Your task to perform on an android device: find snoozed emails in the gmail app Image 0: 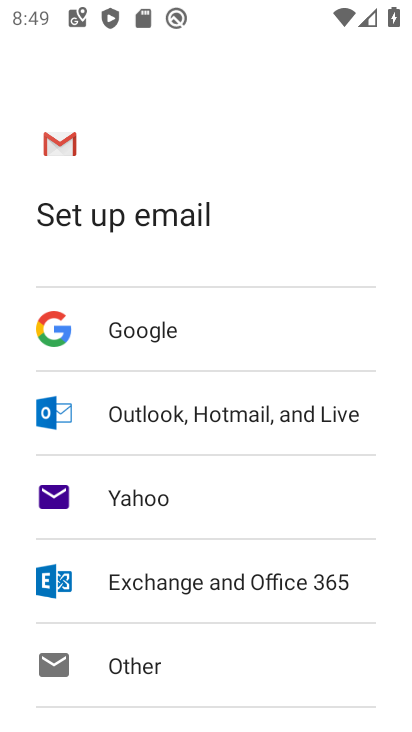
Step 0: press home button
Your task to perform on an android device: find snoozed emails in the gmail app Image 1: 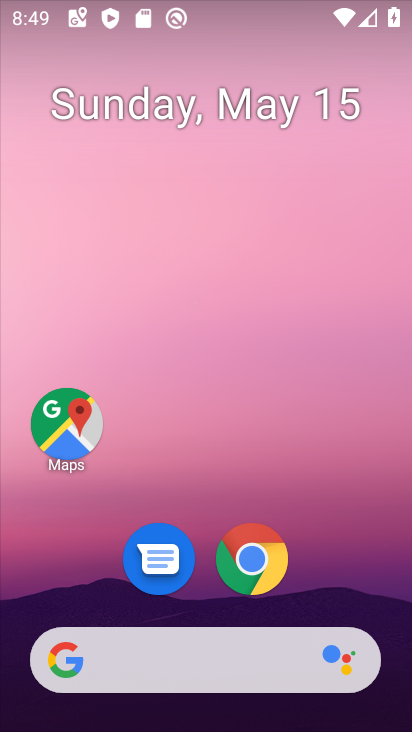
Step 1: drag from (374, 595) to (369, 175)
Your task to perform on an android device: find snoozed emails in the gmail app Image 2: 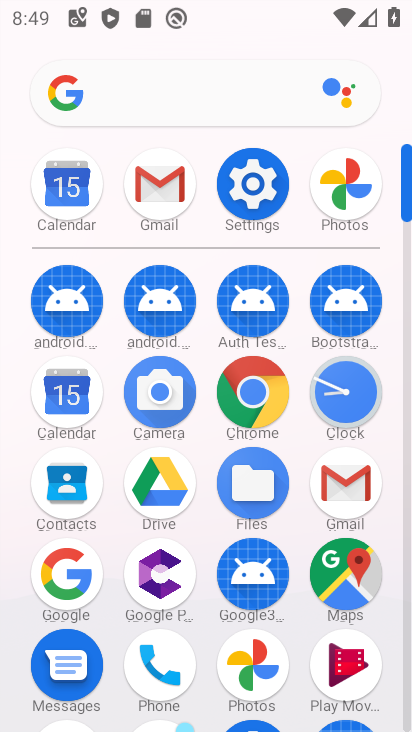
Step 2: click (172, 213)
Your task to perform on an android device: find snoozed emails in the gmail app Image 3: 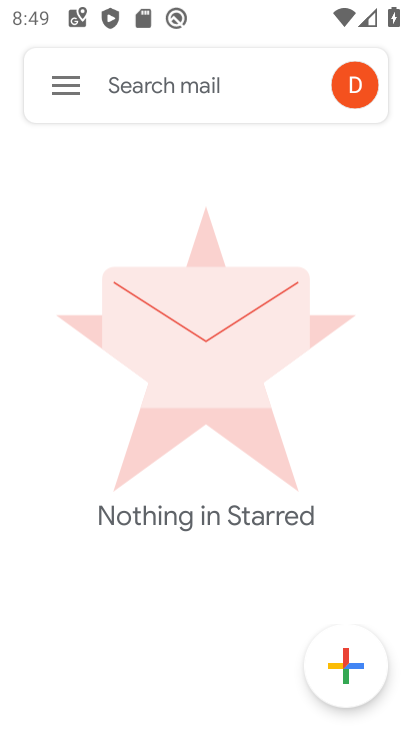
Step 3: click (73, 93)
Your task to perform on an android device: find snoozed emails in the gmail app Image 4: 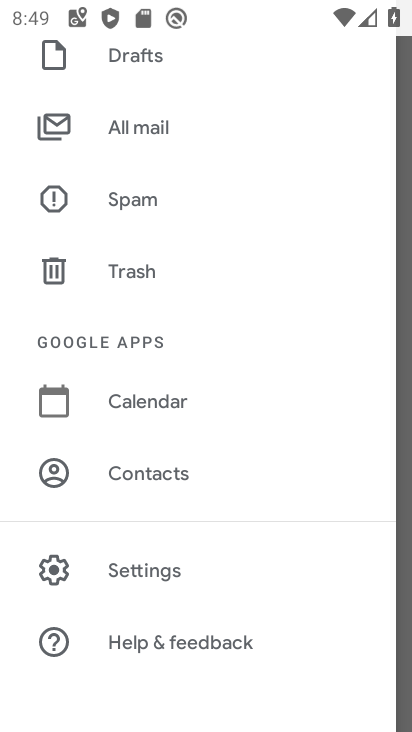
Step 4: drag from (148, 225) to (177, 489)
Your task to perform on an android device: find snoozed emails in the gmail app Image 5: 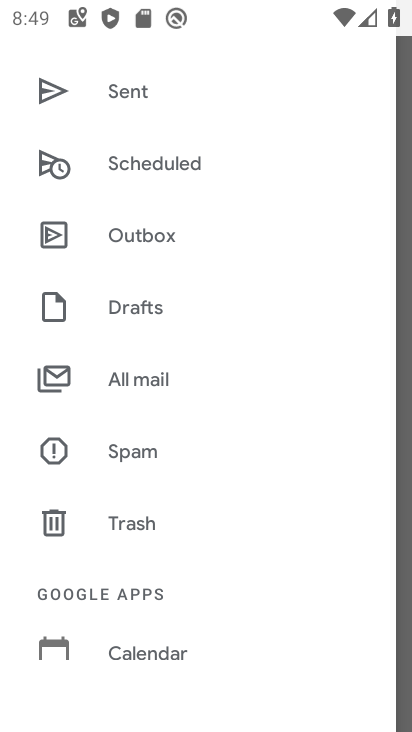
Step 5: drag from (200, 221) to (198, 420)
Your task to perform on an android device: find snoozed emails in the gmail app Image 6: 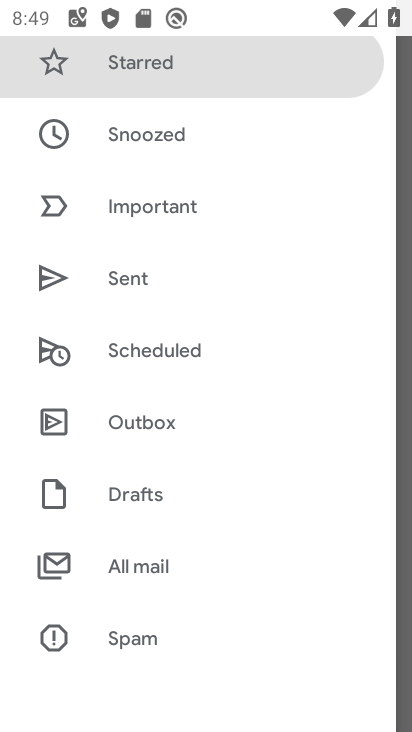
Step 6: click (197, 151)
Your task to perform on an android device: find snoozed emails in the gmail app Image 7: 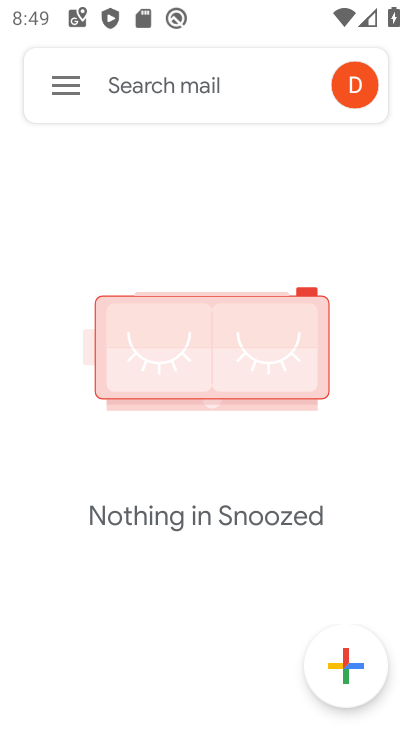
Step 7: task complete